Your task to perform on an android device: check out phone information Image 0: 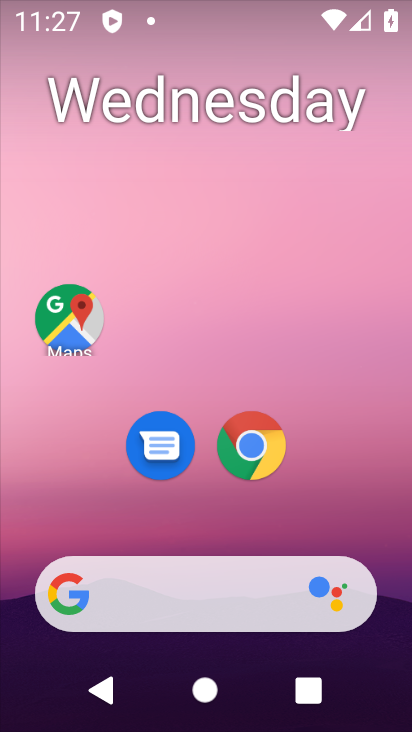
Step 0: drag from (303, 487) to (294, 295)
Your task to perform on an android device: check out phone information Image 1: 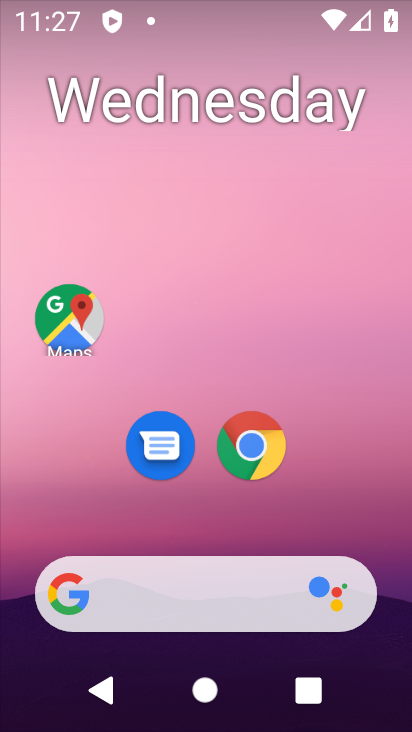
Step 1: click (278, 125)
Your task to perform on an android device: check out phone information Image 2: 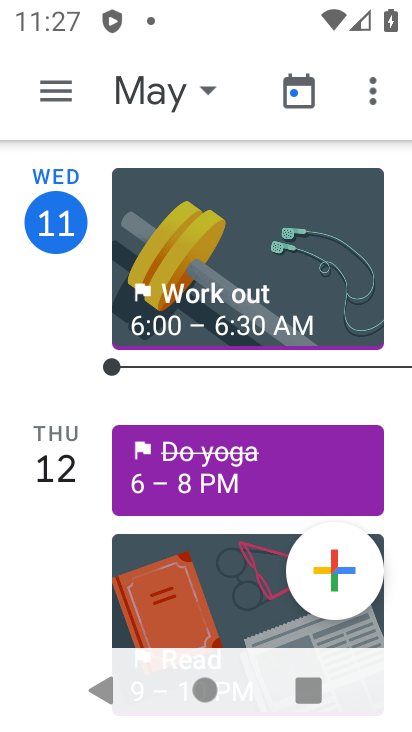
Step 2: press home button
Your task to perform on an android device: check out phone information Image 3: 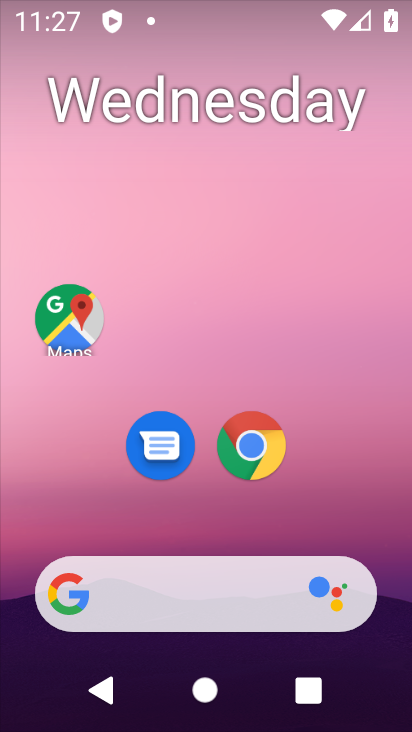
Step 3: drag from (311, 454) to (314, 316)
Your task to perform on an android device: check out phone information Image 4: 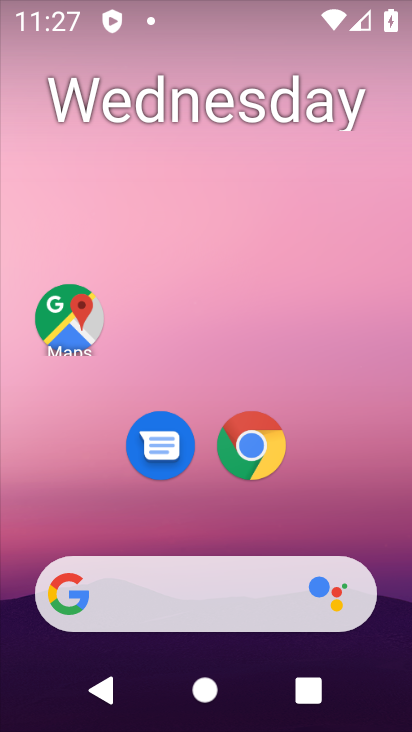
Step 4: drag from (289, 498) to (231, 136)
Your task to perform on an android device: check out phone information Image 5: 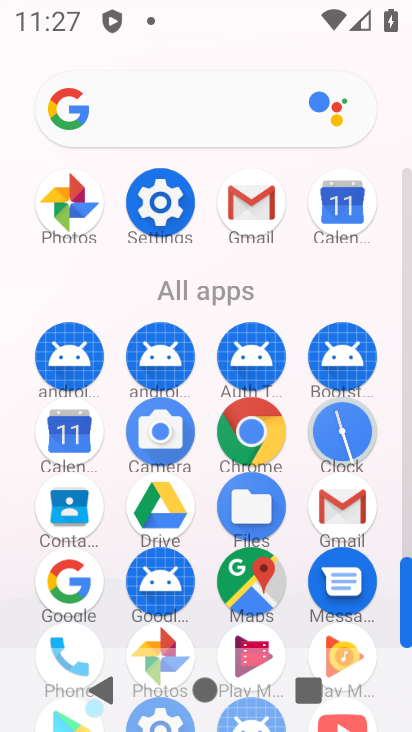
Step 5: click (167, 195)
Your task to perform on an android device: check out phone information Image 6: 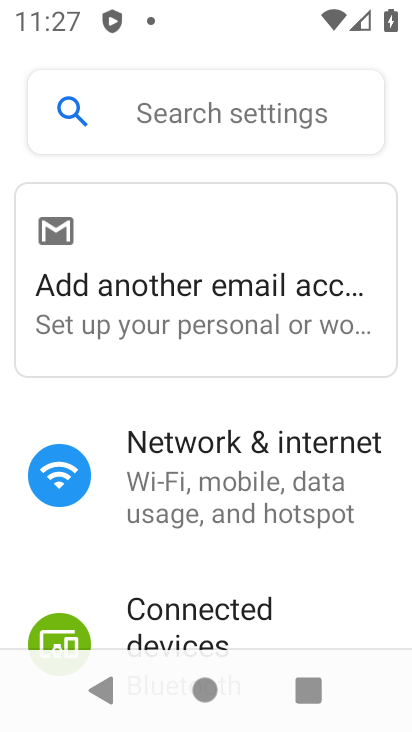
Step 6: drag from (309, 565) to (242, 249)
Your task to perform on an android device: check out phone information Image 7: 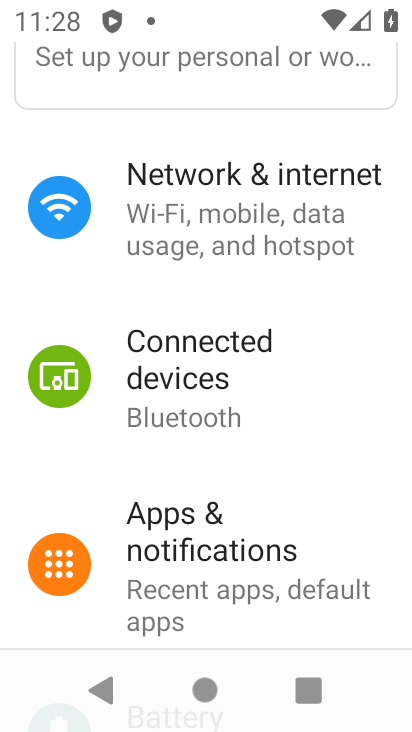
Step 7: drag from (298, 494) to (284, 191)
Your task to perform on an android device: check out phone information Image 8: 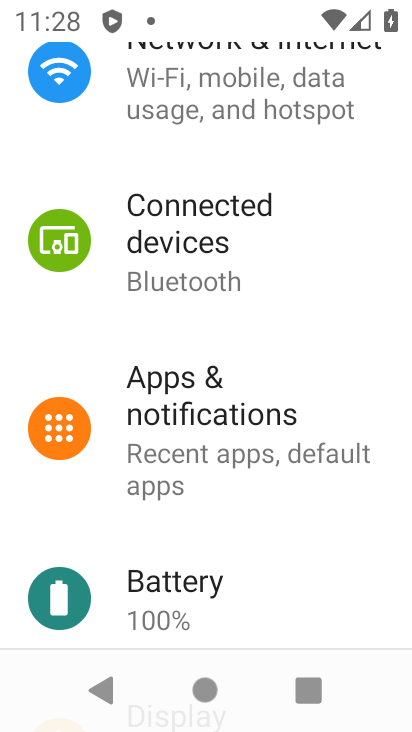
Step 8: drag from (253, 563) to (196, 175)
Your task to perform on an android device: check out phone information Image 9: 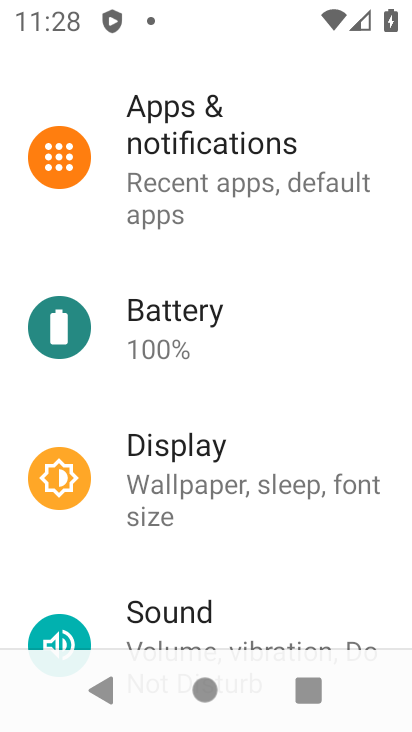
Step 9: drag from (280, 523) to (249, 280)
Your task to perform on an android device: check out phone information Image 10: 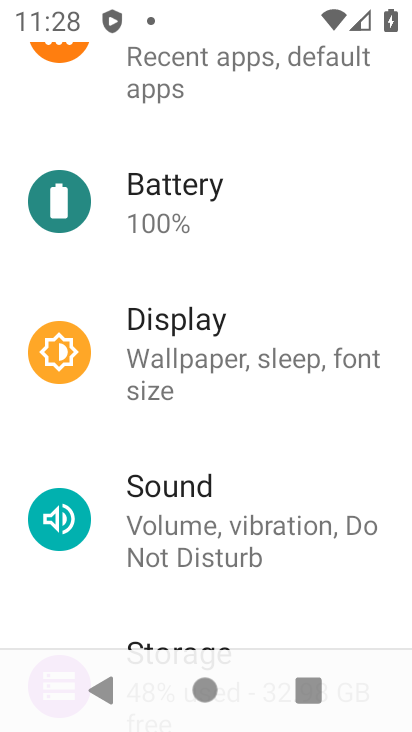
Step 10: drag from (289, 558) to (215, 226)
Your task to perform on an android device: check out phone information Image 11: 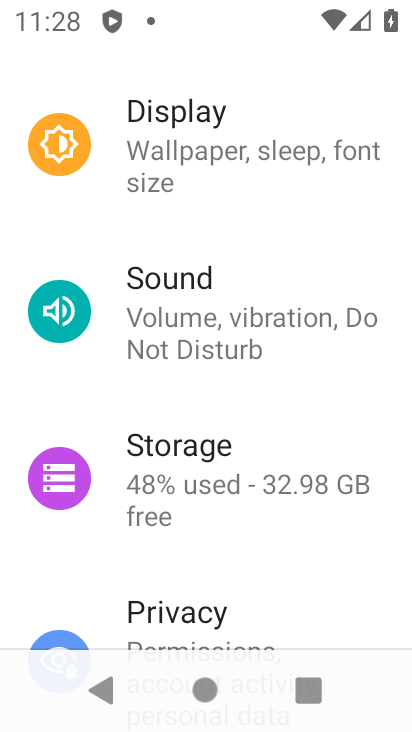
Step 11: drag from (294, 562) to (234, 259)
Your task to perform on an android device: check out phone information Image 12: 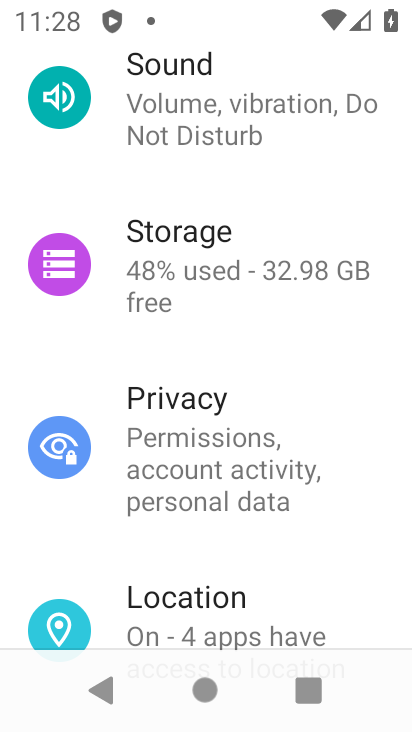
Step 12: drag from (301, 565) to (236, 40)
Your task to perform on an android device: check out phone information Image 13: 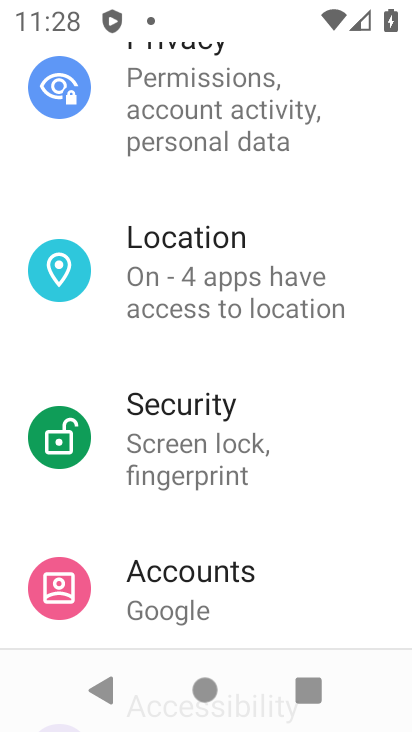
Step 13: drag from (303, 554) to (229, 93)
Your task to perform on an android device: check out phone information Image 14: 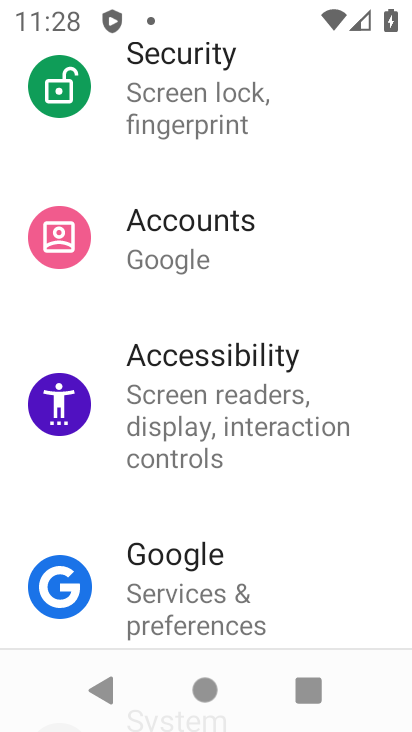
Step 14: drag from (298, 545) to (226, 183)
Your task to perform on an android device: check out phone information Image 15: 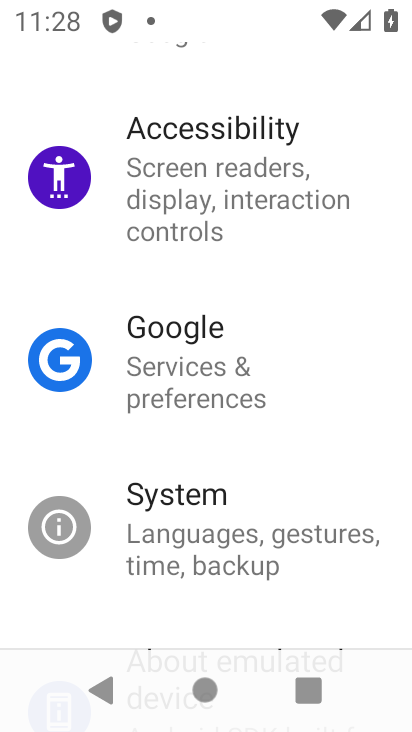
Step 15: drag from (268, 538) to (222, 151)
Your task to perform on an android device: check out phone information Image 16: 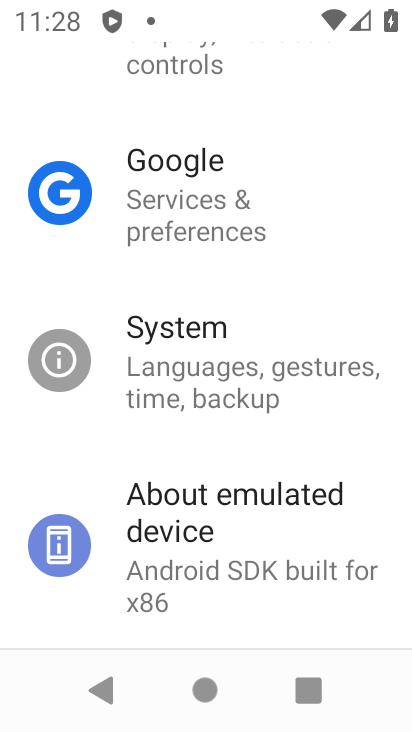
Step 16: drag from (293, 505) to (272, 101)
Your task to perform on an android device: check out phone information Image 17: 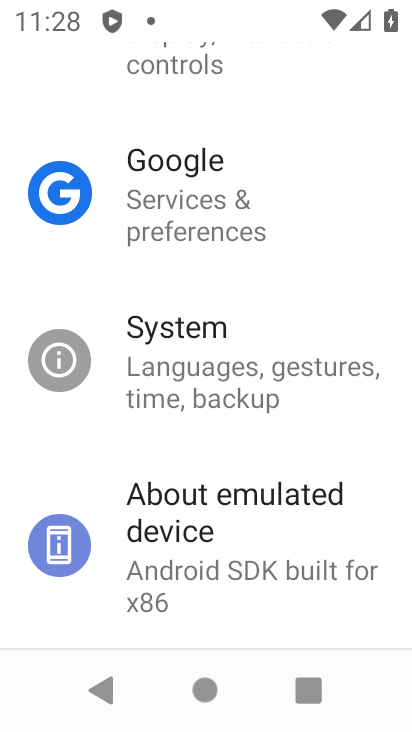
Step 17: drag from (242, 618) to (238, 226)
Your task to perform on an android device: check out phone information Image 18: 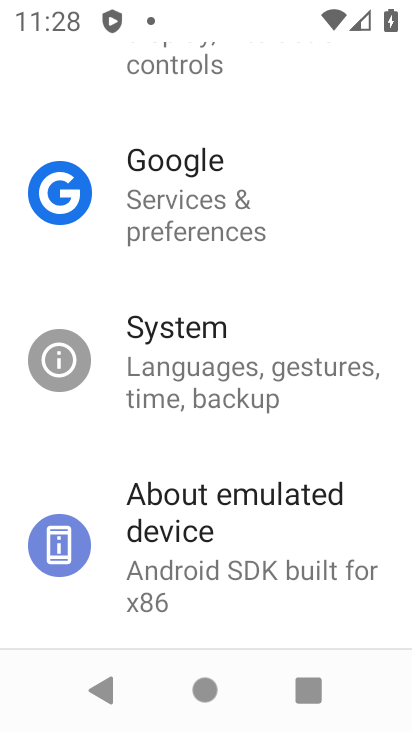
Step 18: drag from (323, 624) to (257, 253)
Your task to perform on an android device: check out phone information Image 19: 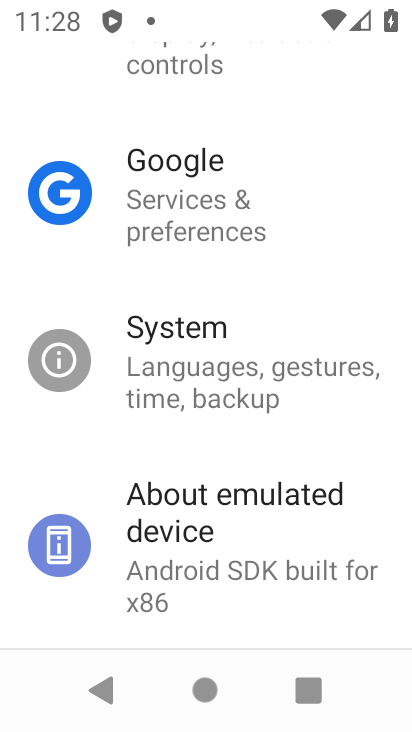
Step 19: click (245, 523)
Your task to perform on an android device: check out phone information Image 20: 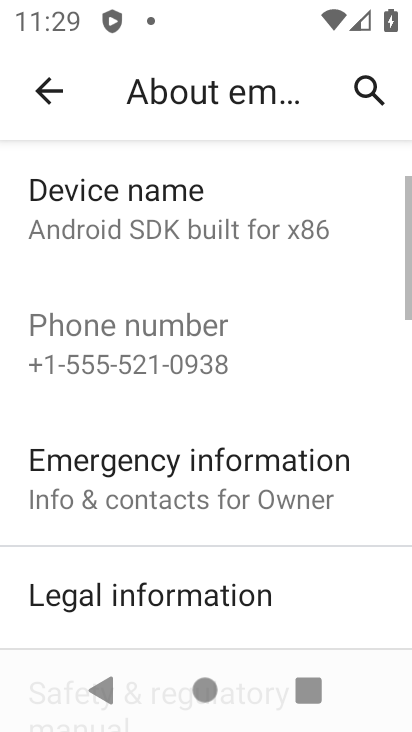
Step 20: drag from (322, 589) to (188, 181)
Your task to perform on an android device: check out phone information Image 21: 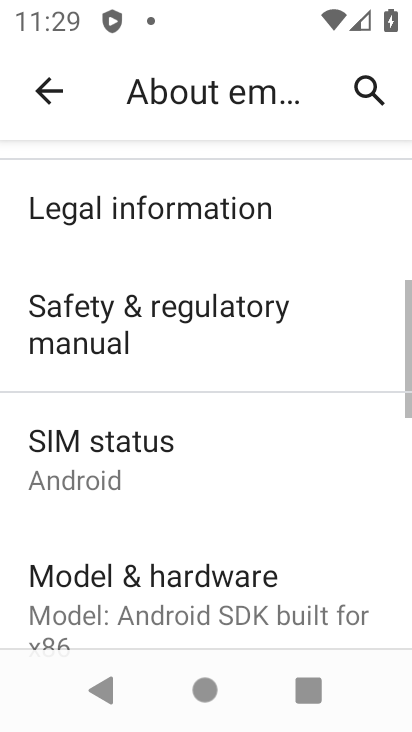
Step 21: click (257, 588)
Your task to perform on an android device: check out phone information Image 22: 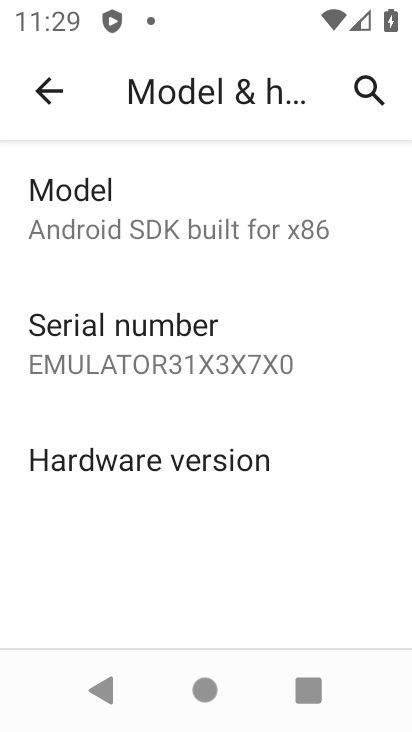
Step 22: task complete